Your task to perform on an android device: turn off picture-in-picture Image 0: 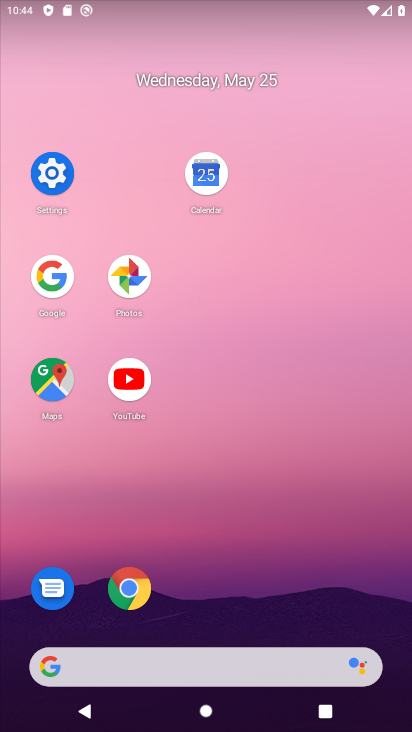
Step 0: click (65, 173)
Your task to perform on an android device: turn off picture-in-picture Image 1: 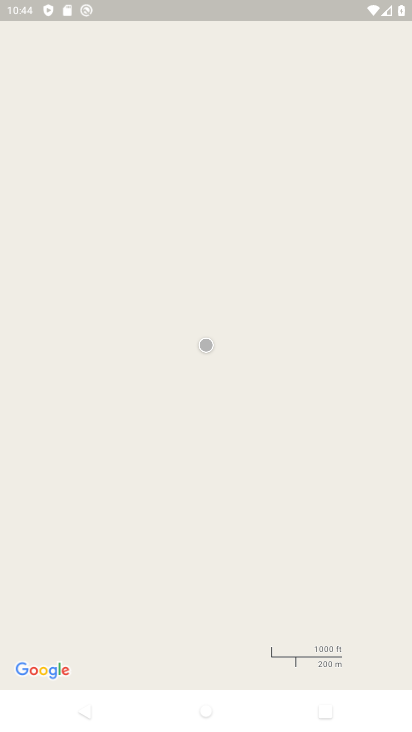
Step 1: press home button
Your task to perform on an android device: turn off picture-in-picture Image 2: 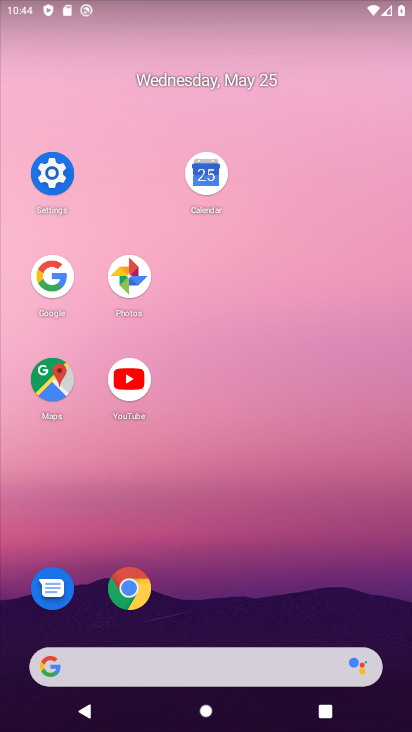
Step 2: click (129, 577)
Your task to perform on an android device: turn off picture-in-picture Image 3: 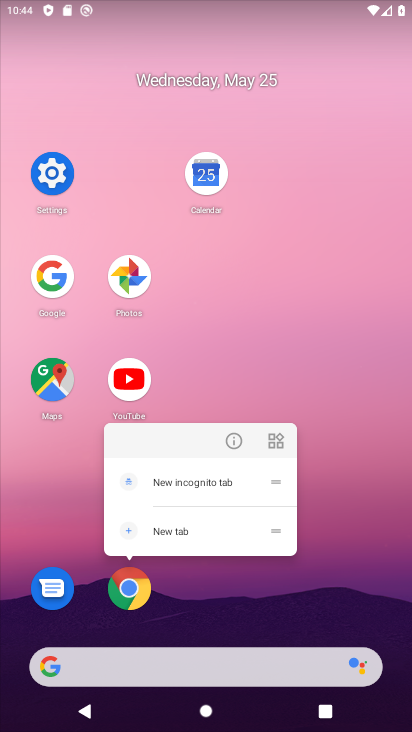
Step 3: click (235, 442)
Your task to perform on an android device: turn off picture-in-picture Image 4: 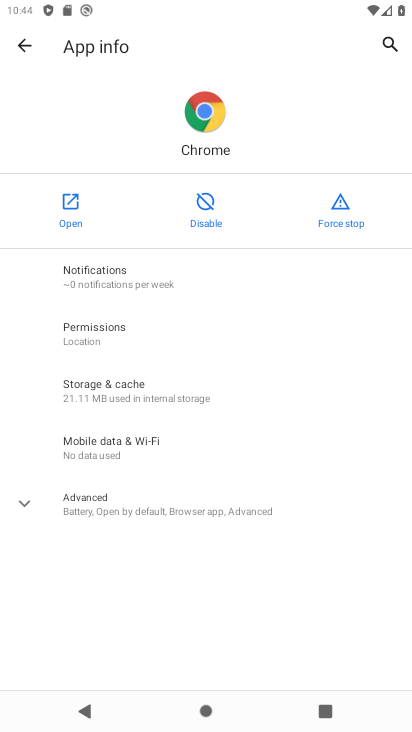
Step 4: click (203, 513)
Your task to perform on an android device: turn off picture-in-picture Image 5: 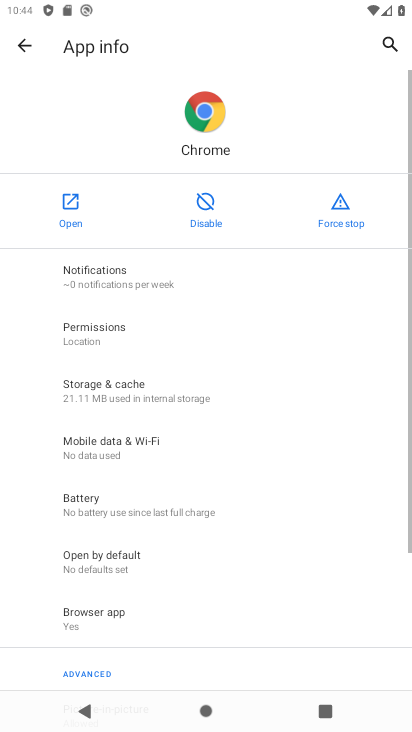
Step 5: drag from (241, 611) to (257, 307)
Your task to perform on an android device: turn off picture-in-picture Image 6: 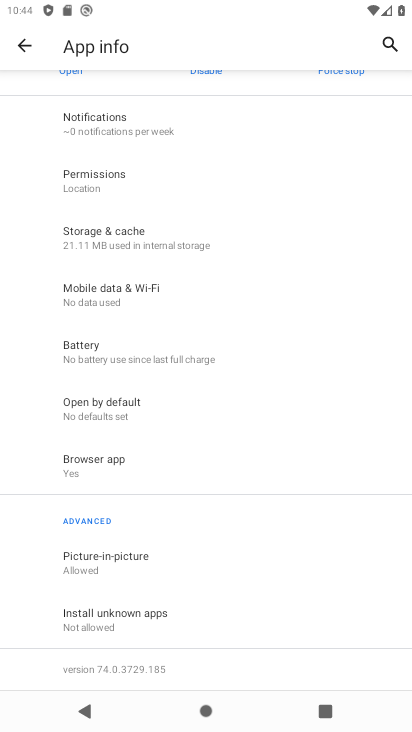
Step 6: click (200, 562)
Your task to perform on an android device: turn off picture-in-picture Image 7: 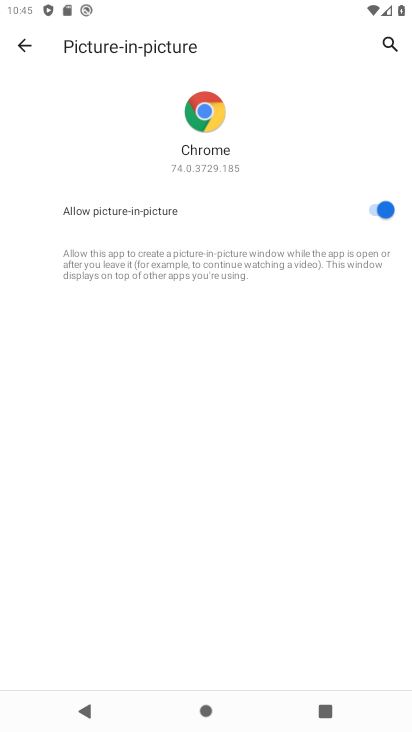
Step 7: click (381, 216)
Your task to perform on an android device: turn off picture-in-picture Image 8: 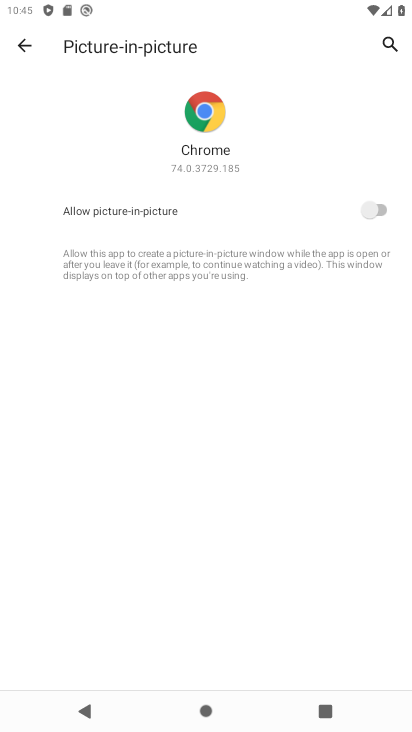
Step 8: task complete